Your task to perform on an android device: Go to internet settings Image 0: 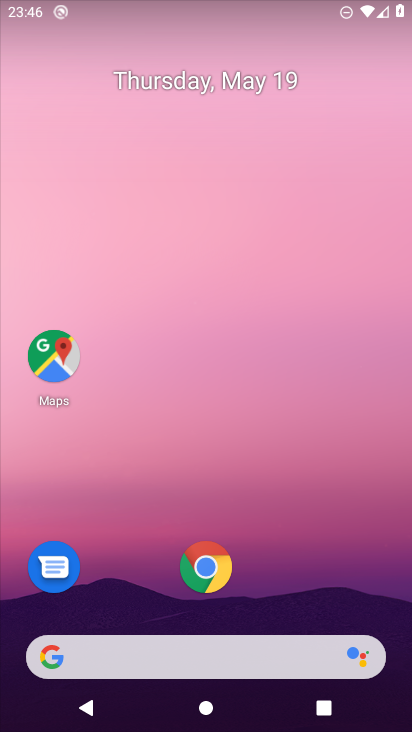
Step 0: press home button
Your task to perform on an android device: Go to internet settings Image 1: 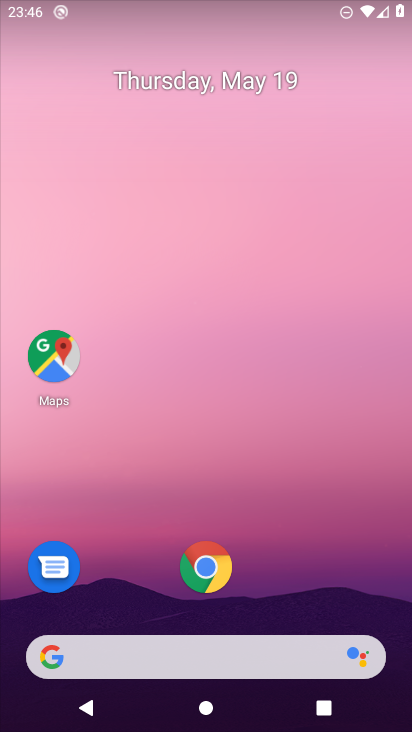
Step 1: drag from (170, 617) to (227, 0)
Your task to perform on an android device: Go to internet settings Image 2: 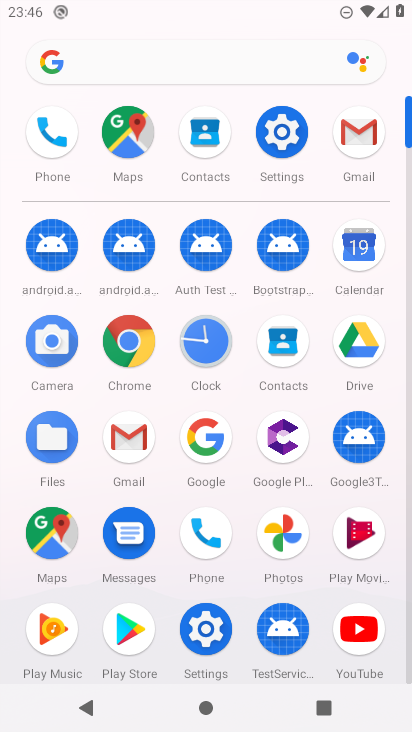
Step 2: click (278, 131)
Your task to perform on an android device: Go to internet settings Image 3: 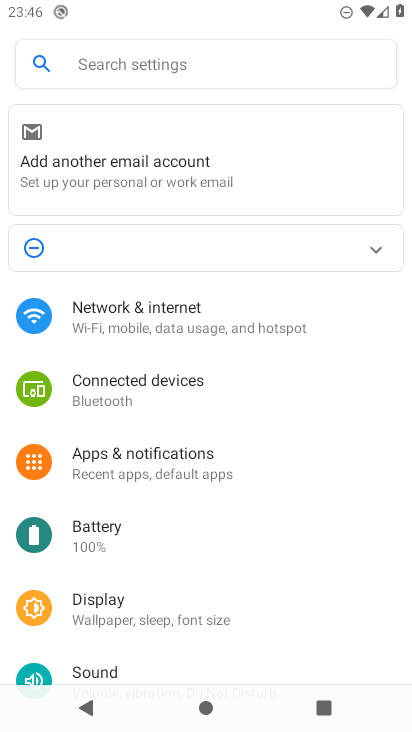
Step 3: click (212, 304)
Your task to perform on an android device: Go to internet settings Image 4: 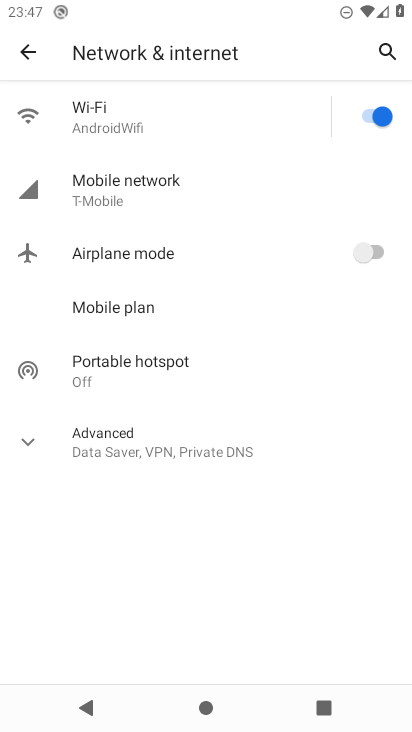
Step 4: click (33, 436)
Your task to perform on an android device: Go to internet settings Image 5: 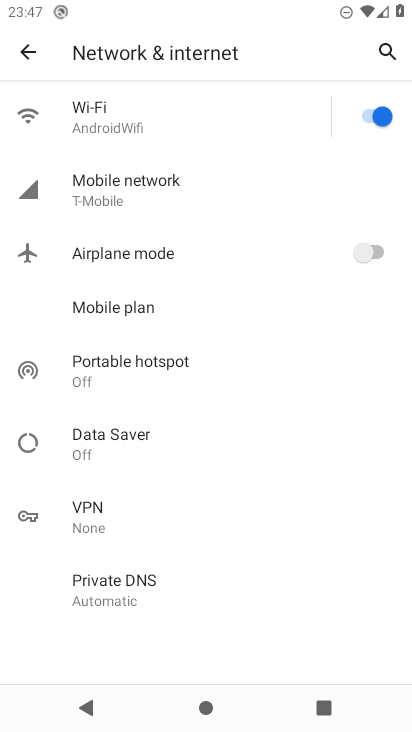
Step 5: task complete